Your task to perform on an android device: allow notifications from all sites in the chrome app Image 0: 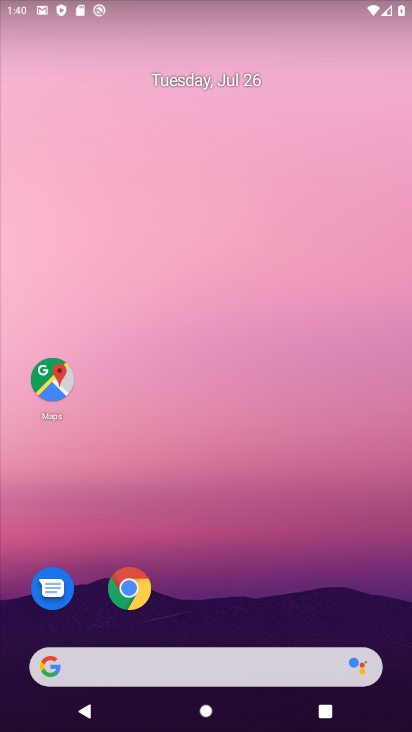
Step 0: click (132, 589)
Your task to perform on an android device: allow notifications from all sites in the chrome app Image 1: 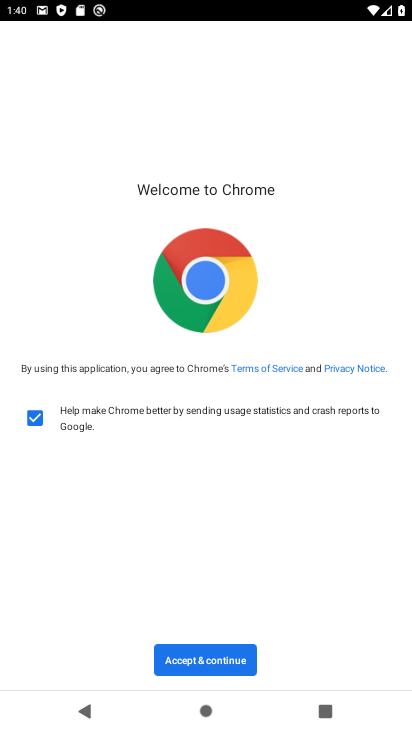
Step 1: click (221, 663)
Your task to perform on an android device: allow notifications from all sites in the chrome app Image 2: 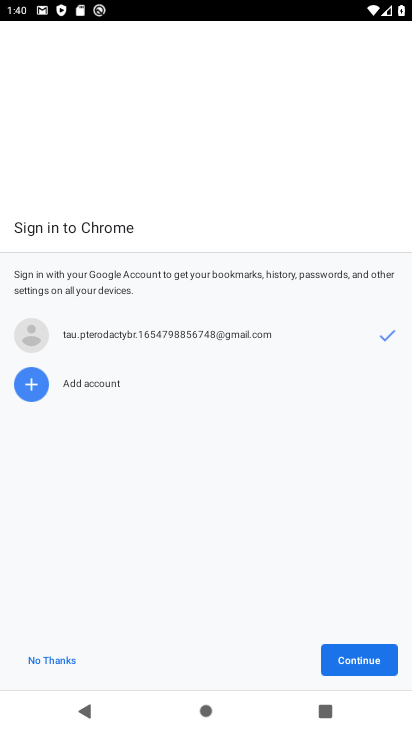
Step 2: click (345, 667)
Your task to perform on an android device: allow notifications from all sites in the chrome app Image 3: 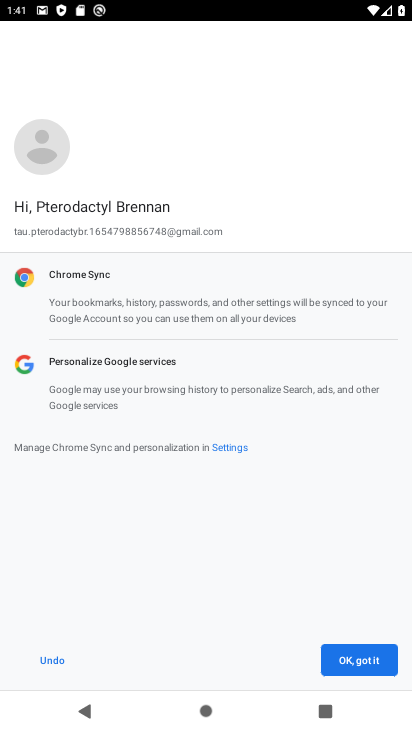
Step 3: click (362, 665)
Your task to perform on an android device: allow notifications from all sites in the chrome app Image 4: 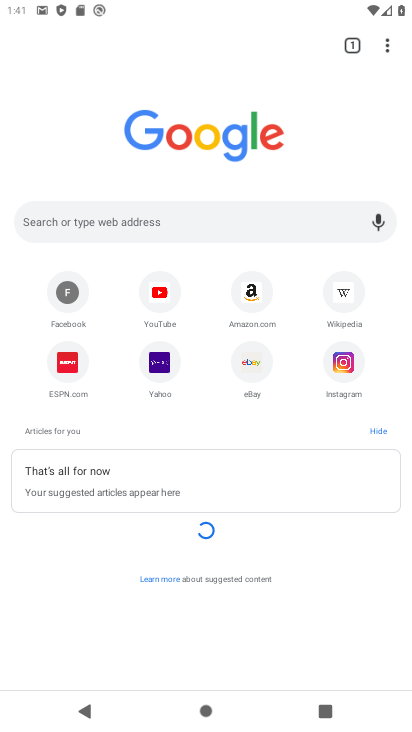
Step 4: click (384, 49)
Your task to perform on an android device: allow notifications from all sites in the chrome app Image 5: 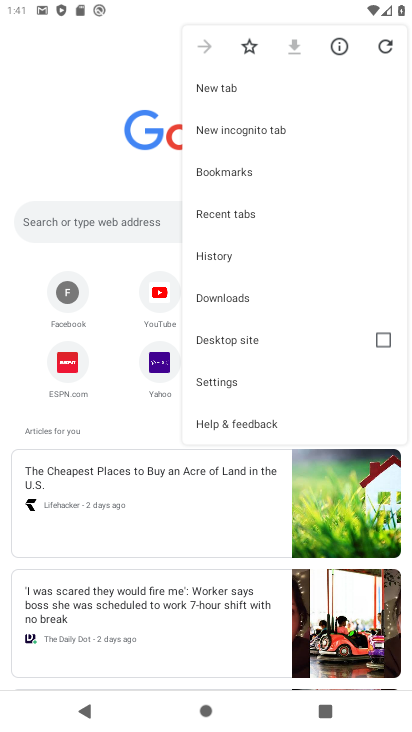
Step 5: click (265, 376)
Your task to perform on an android device: allow notifications from all sites in the chrome app Image 6: 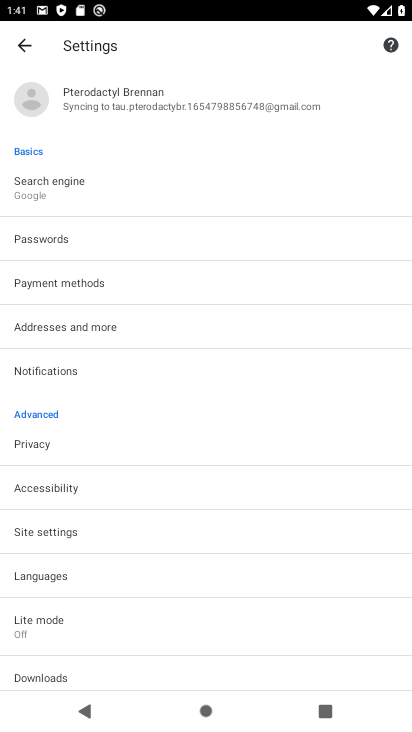
Step 6: click (142, 530)
Your task to perform on an android device: allow notifications from all sites in the chrome app Image 7: 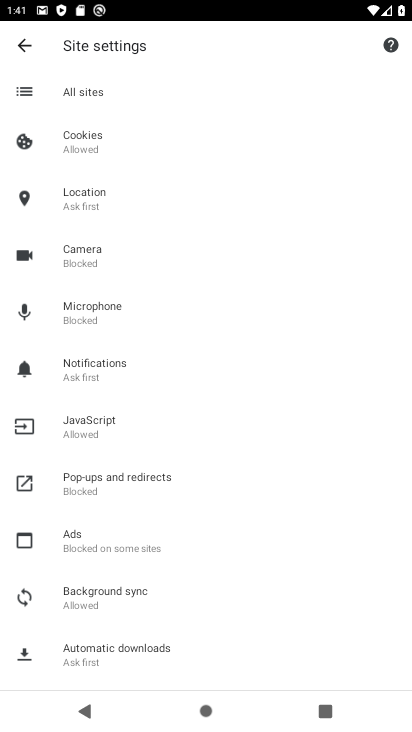
Step 7: click (142, 367)
Your task to perform on an android device: allow notifications from all sites in the chrome app Image 8: 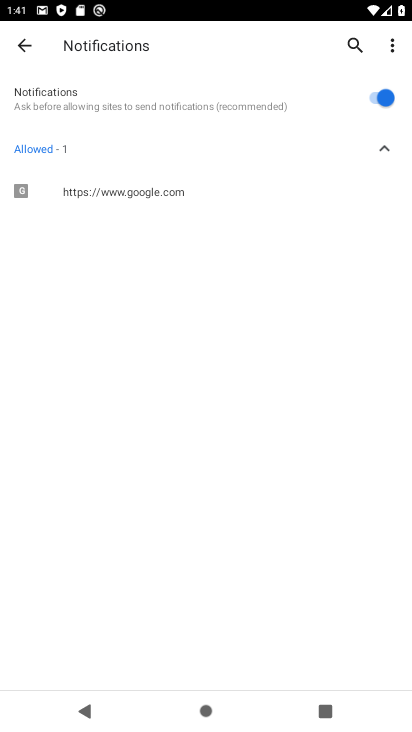
Step 8: task complete